Your task to perform on an android device: Open network settings Image 0: 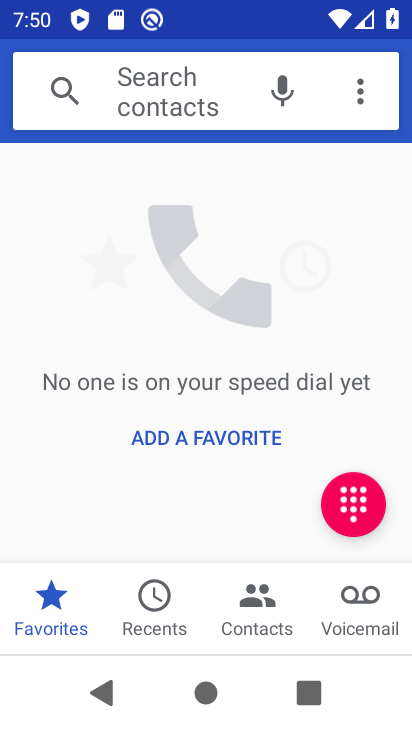
Step 0: press back button
Your task to perform on an android device: Open network settings Image 1: 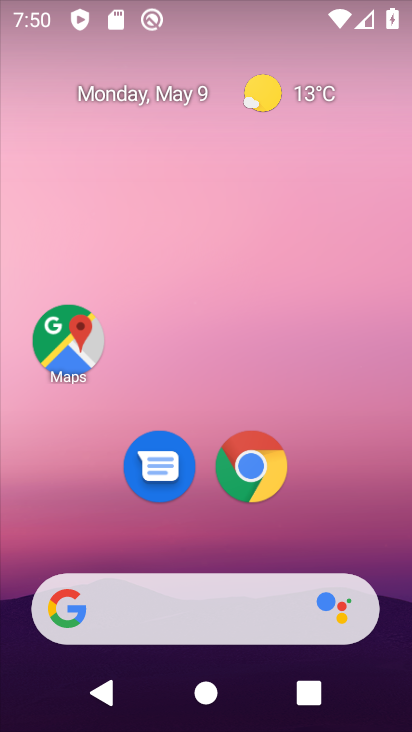
Step 1: drag from (340, 528) to (309, 8)
Your task to perform on an android device: Open network settings Image 2: 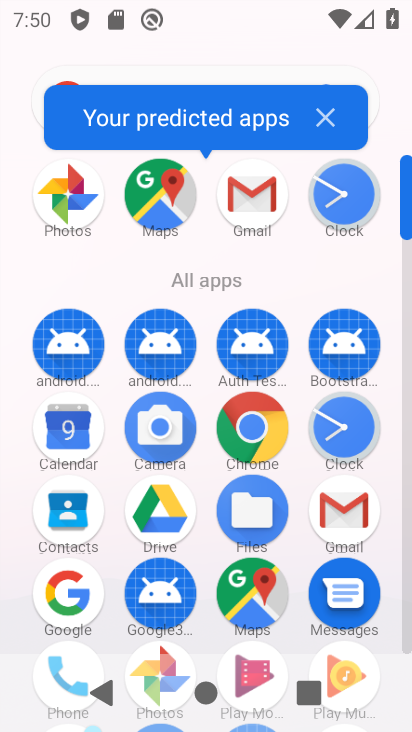
Step 2: drag from (206, 469) to (206, 223)
Your task to perform on an android device: Open network settings Image 3: 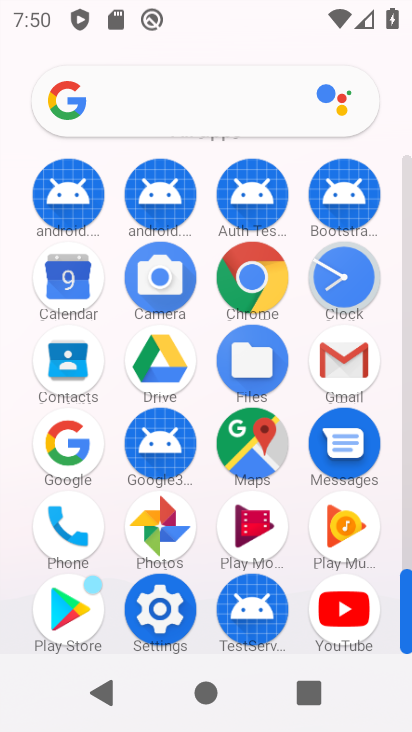
Step 3: click (157, 606)
Your task to perform on an android device: Open network settings Image 4: 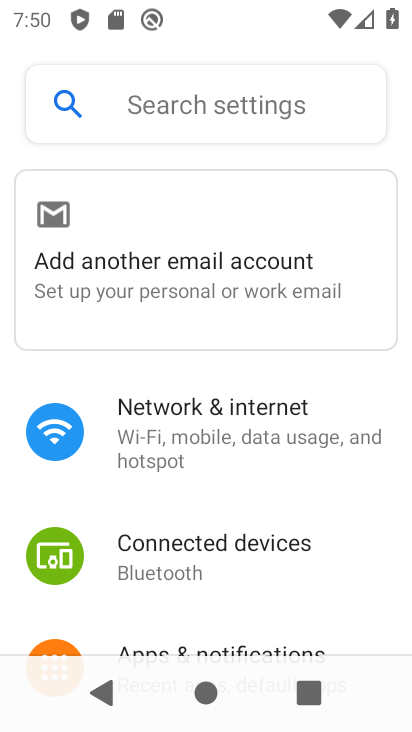
Step 4: click (178, 403)
Your task to perform on an android device: Open network settings Image 5: 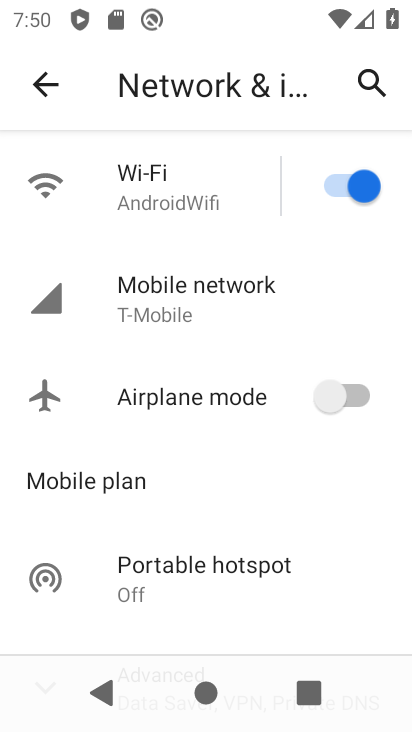
Step 5: click (203, 278)
Your task to perform on an android device: Open network settings Image 6: 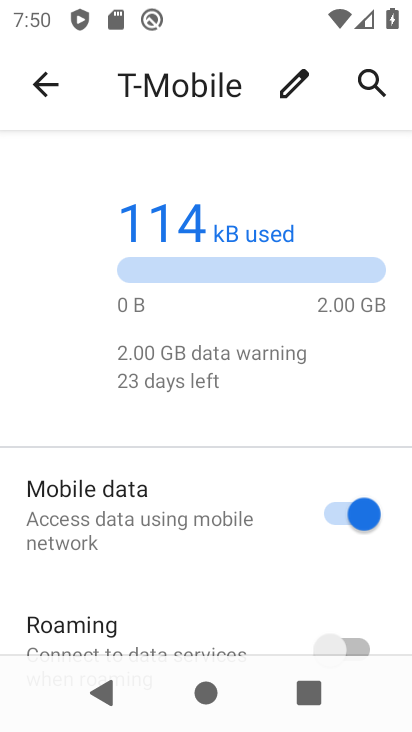
Step 6: task complete